Your task to perform on an android device: install app "Adobe Express: Graphic Design" Image 0: 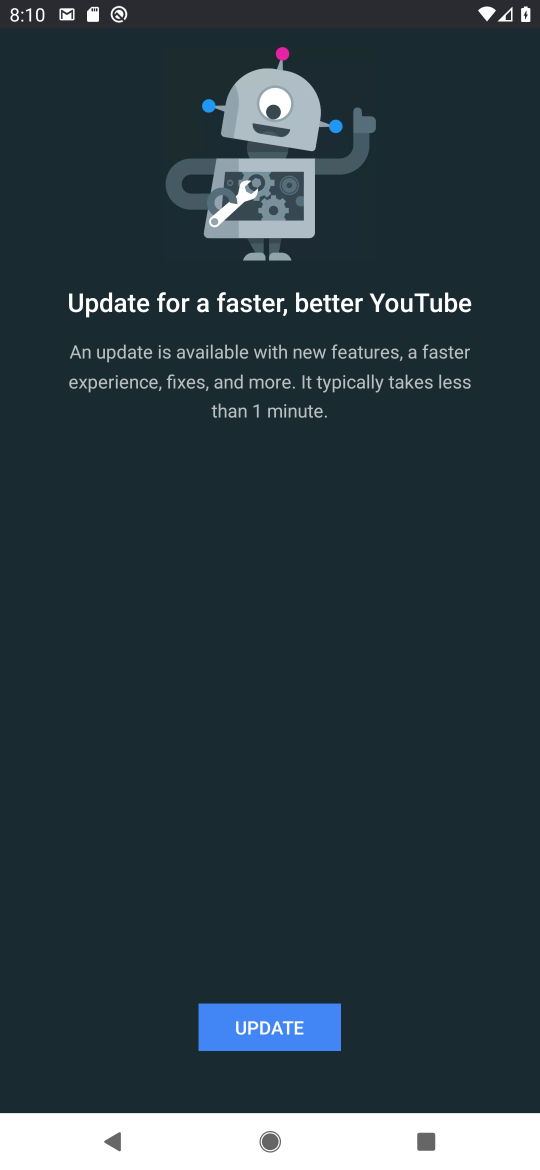
Step 0: press home button
Your task to perform on an android device: install app "Adobe Express: Graphic Design" Image 1: 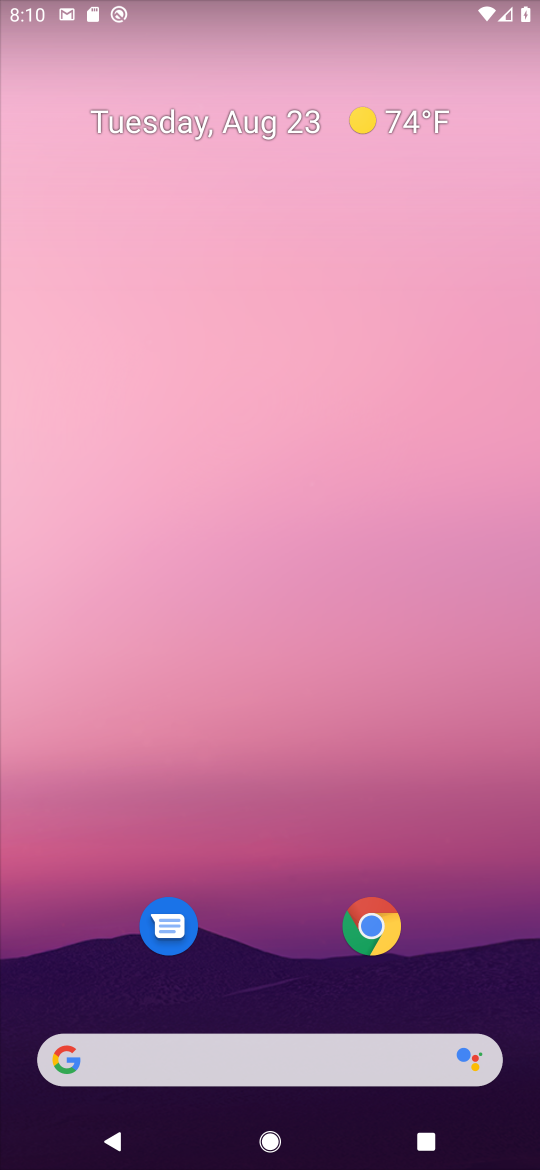
Step 1: drag from (279, 736) to (208, 27)
Your task to perform on an android device: install app "Adobe Express: Graphic Design" Image 2: 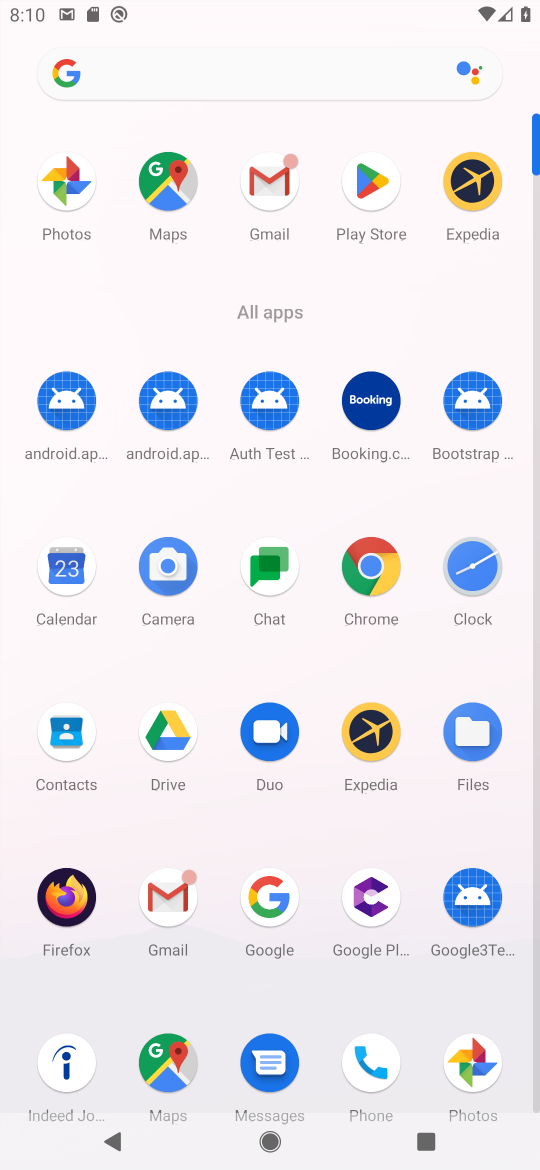
Step 2: click (375, 218)
Your task to perform on an android device: install app "Adobe Express: Graphic Design" Image 3: 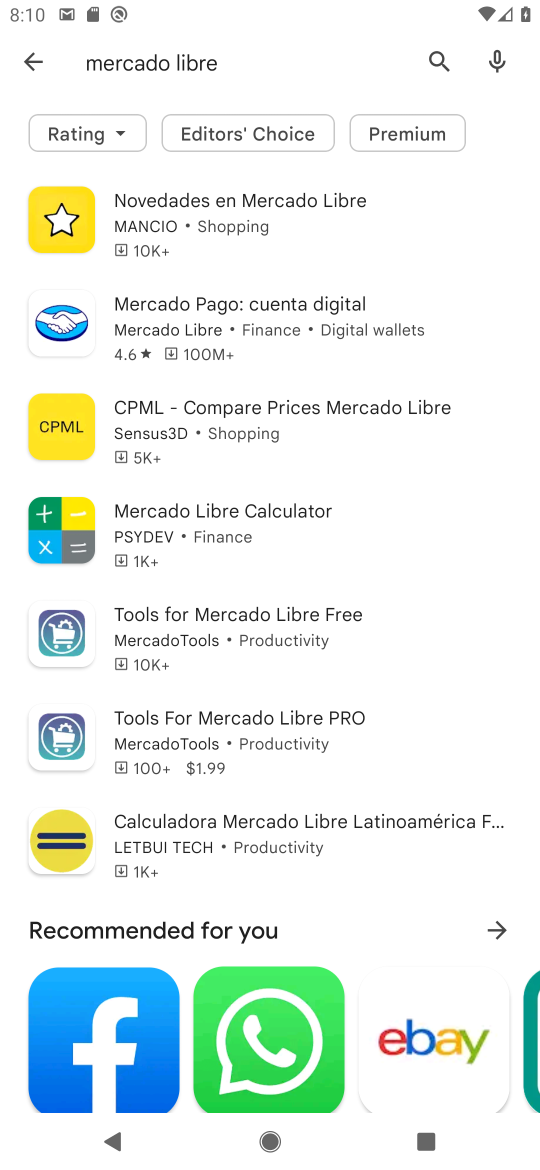
Step 3: click (244, 59)
Your task to perform on an android device: install app "Adobe Express: Graphic Design" Image 4: 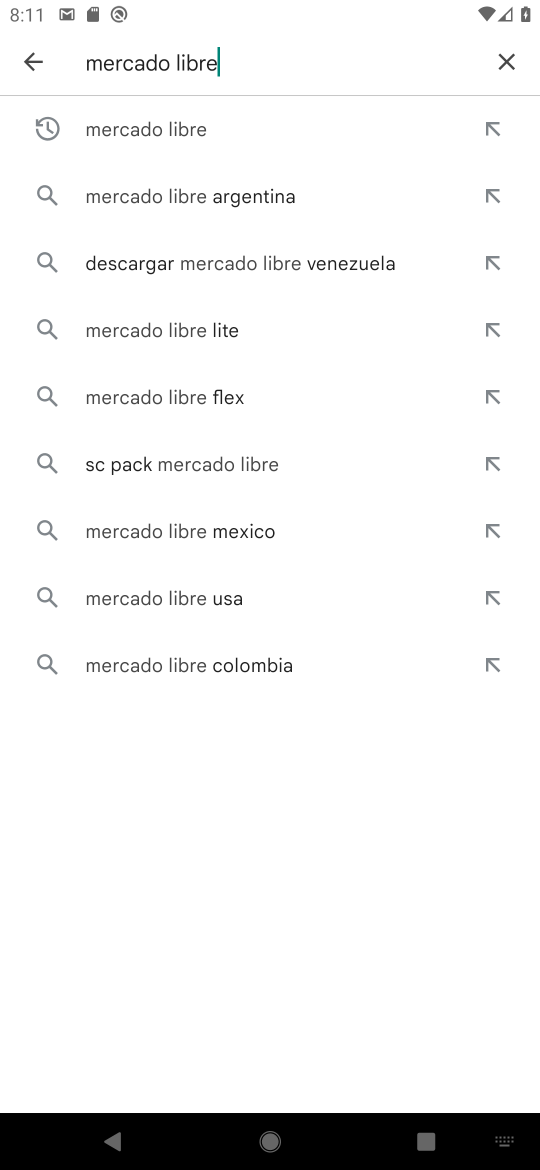
Step 4: click (507, 59)
Your task to perform on an android device: install app "Adobe Express: Graphic Design" Image 5: 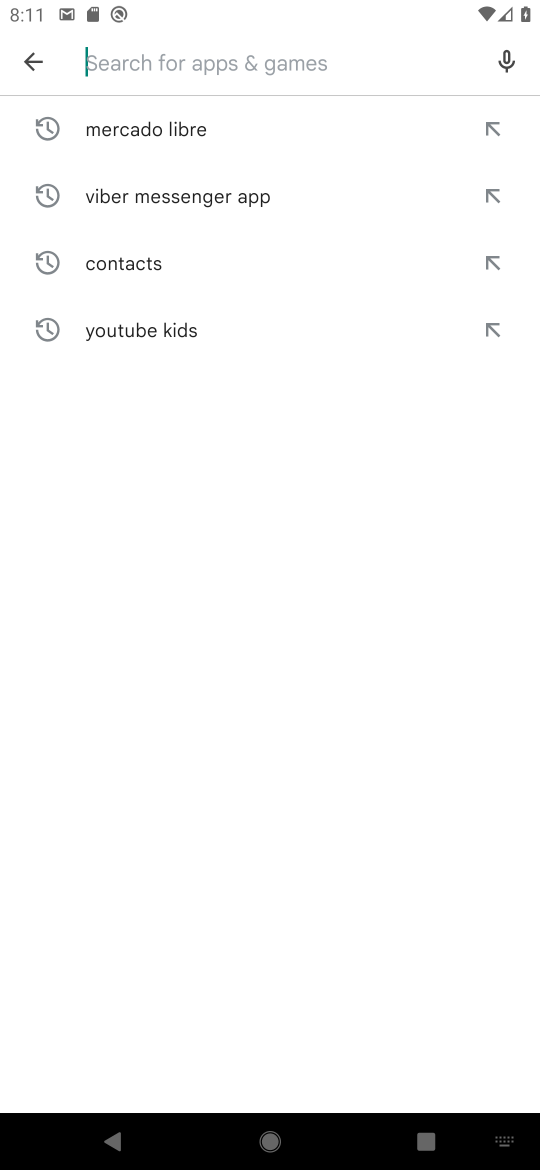
Step 5: type "Adobe Express"
Your task to perform on an android device: install app "Adobe Express: Graphic Design" Image 6: 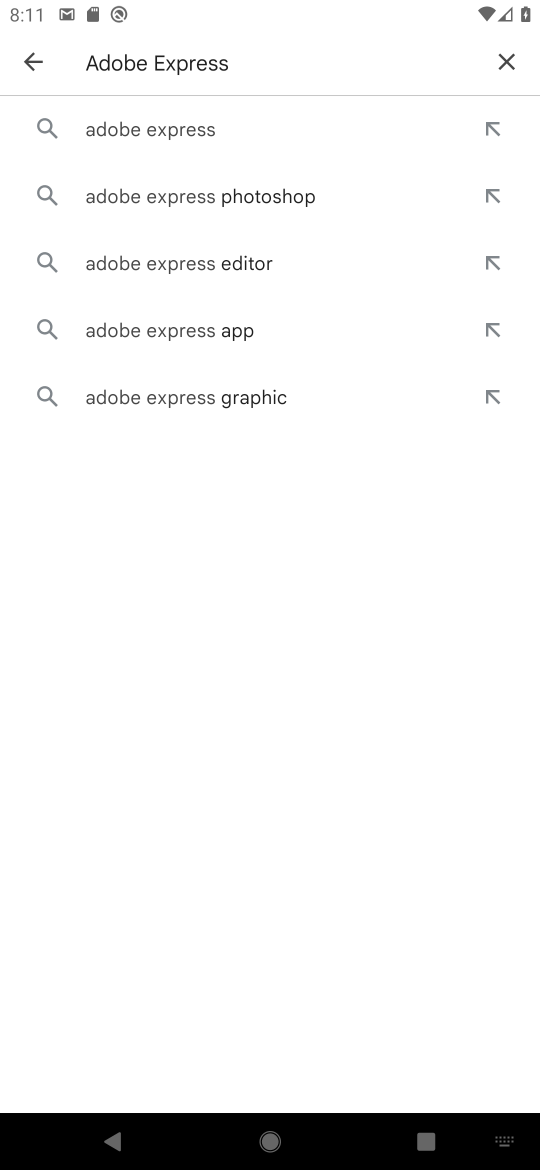
Step 6: click (176, 136)
Your task to perform on an android device: install app "Adobe Express: Graphic Design" Image 7: 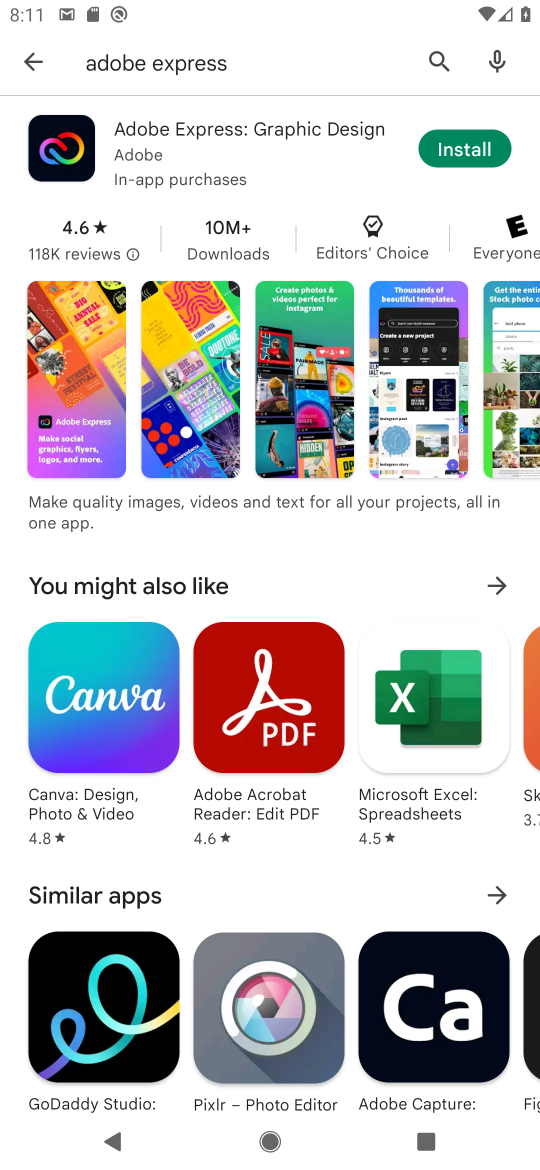
Step 7: click (472, 145)
Your task to perform on an android device: install app "Adobe Express: Graphic Design" Image 8: 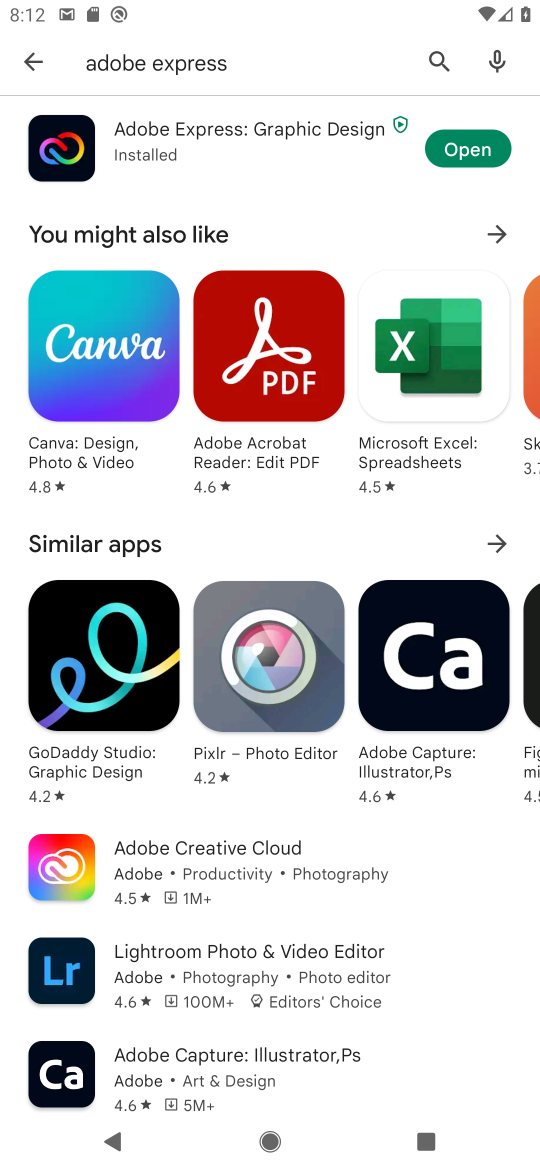
Step 8: task complete